Your task to perform on an android device: check data usage Image 0: 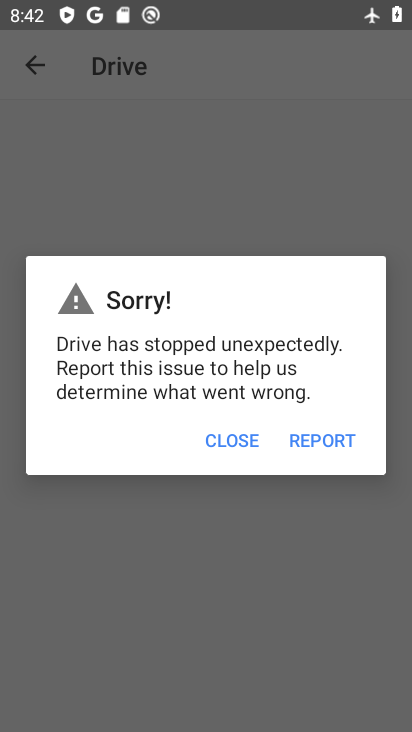
Step 0: click (219, 434)
Your task to perform on an android device: check data usage Image 1: 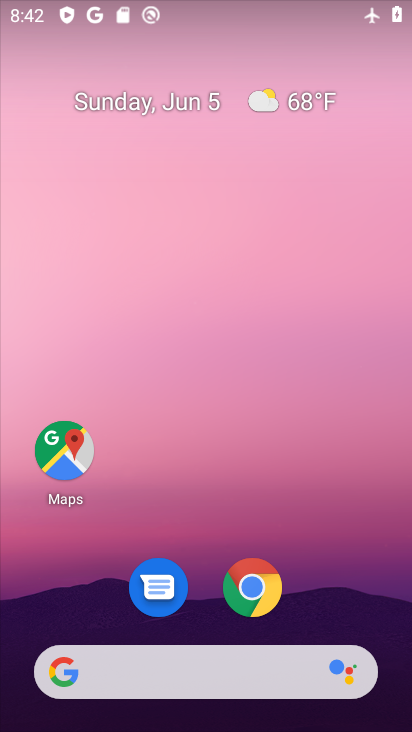
Step 1: drag from (308, 603) to (199, 0)
Your task to perform on an android device: check data usage Image 2: 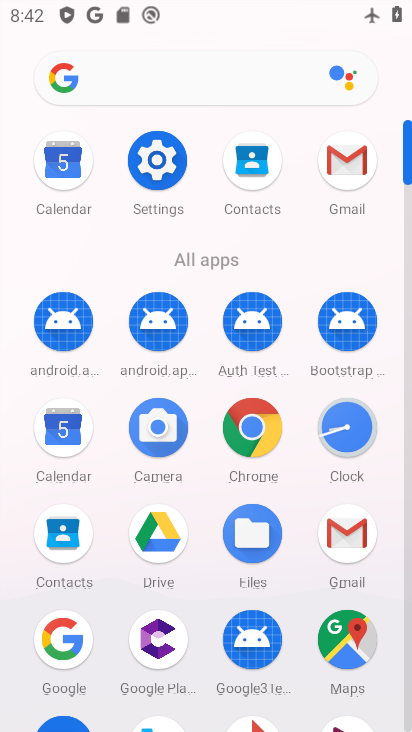
Step 2: click (164, 178)
Your task to perform on an android device: check data usage Image 3: 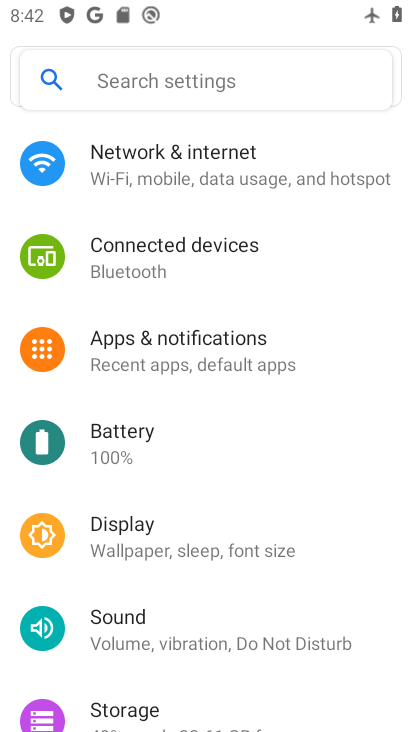
Step 3: click (197, 168)
Your task to perform on an android device: check data usage Image 4: 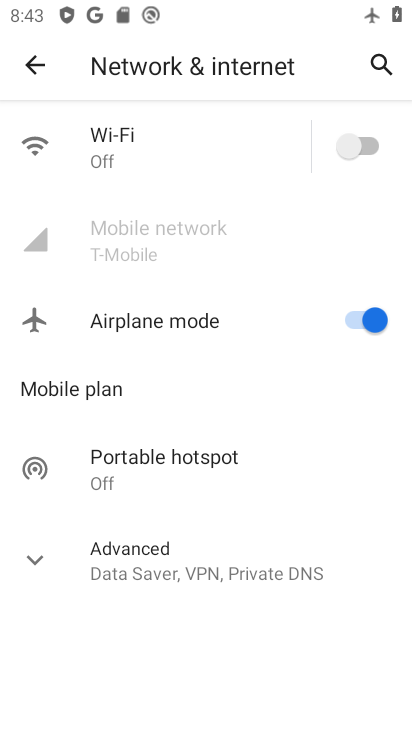
Step 4: click (165, 241)
Your task to perform on an android device: check data usage Image 5: 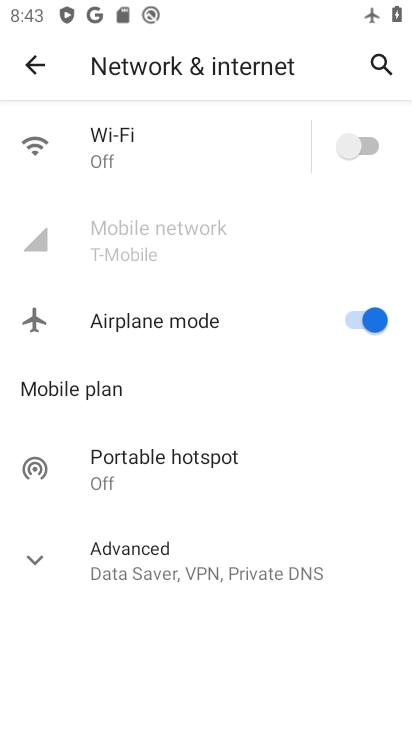
Step 5: task complete